Your task to perform on an android device: clear history in the chrome app Image 0: 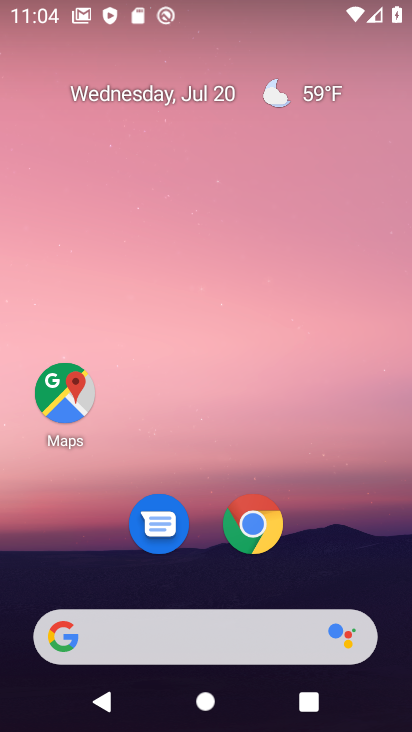
Step 0: click (252, 525)
Your task to perform on an android device: clear history in the chrome app Image 1: 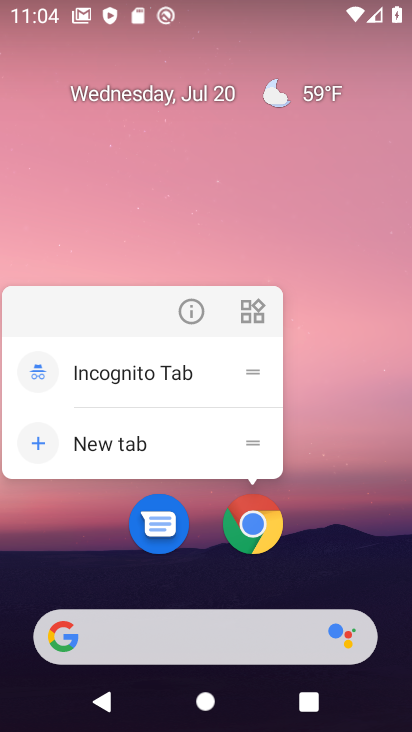
Step 1: click (252, 533)
Your task to perform on an android device: clear history in the chrome app Image 2: 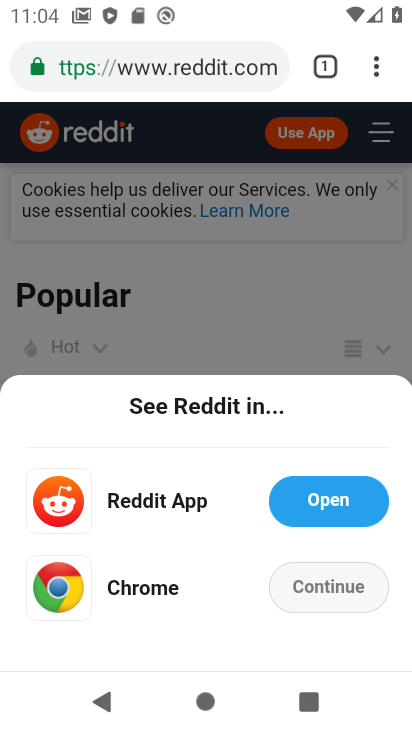
Step 2: drag from (371, 64) to (184, 374)
Your task to perform on an android device: clear history in the chrome app Image 3: 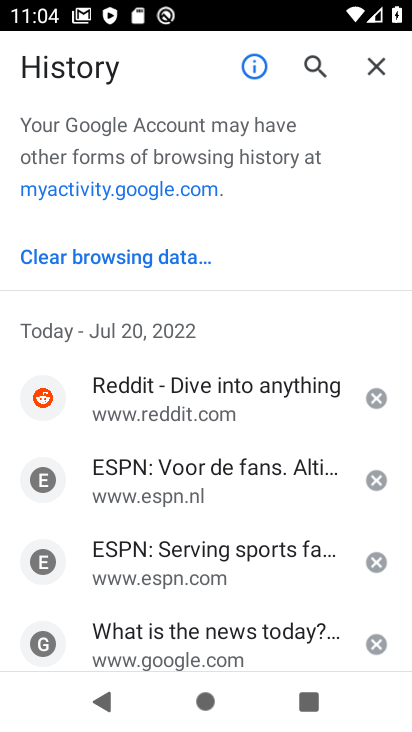
Step 3: click (146, 242)
Your task to perform on an android device: clear history in the chrome app Image 4: 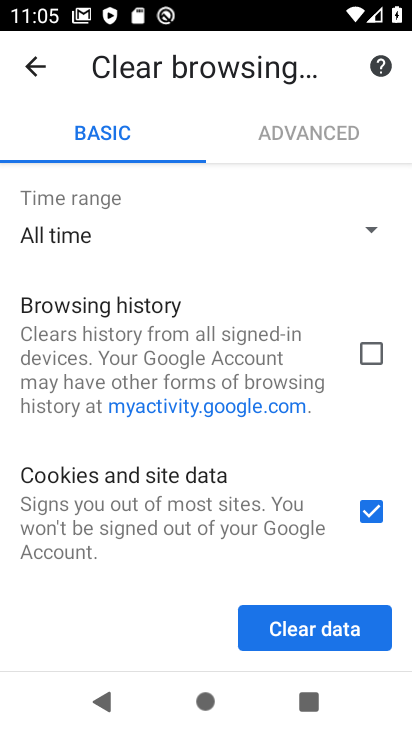
Step 4: click (364, 348)
Your task to perform on an android device: clear history in the chrome app Image 5: 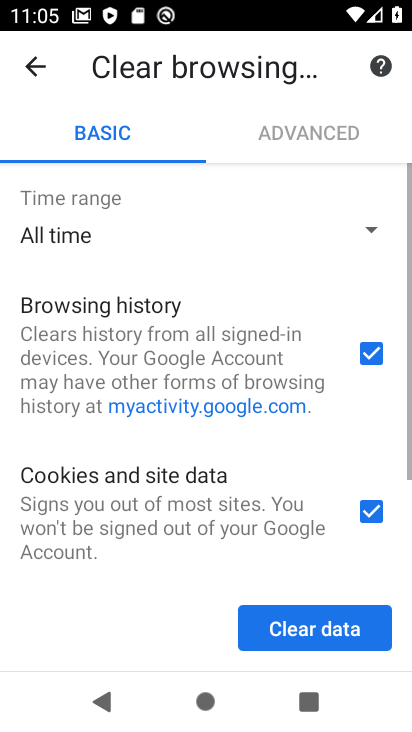
Step 5: drag from (249, 498) to (298, 191)
Your task to perform on an android device: clear history in the chrome app Image 6: 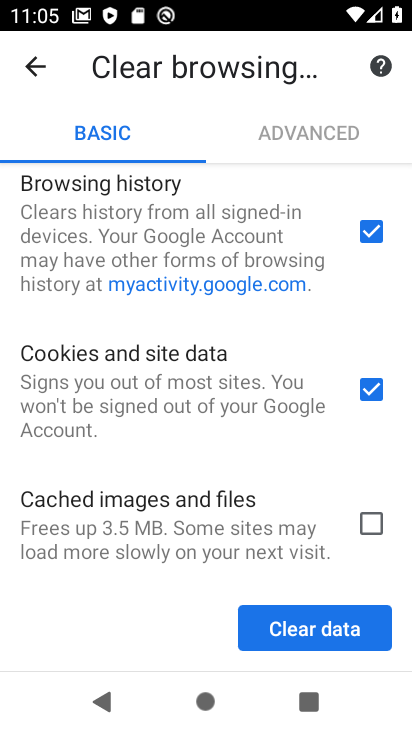
Step 6: drag from (291, 549) to (355, 205)
Your task to perform on an android device: clear history in the chrome app Image 7: 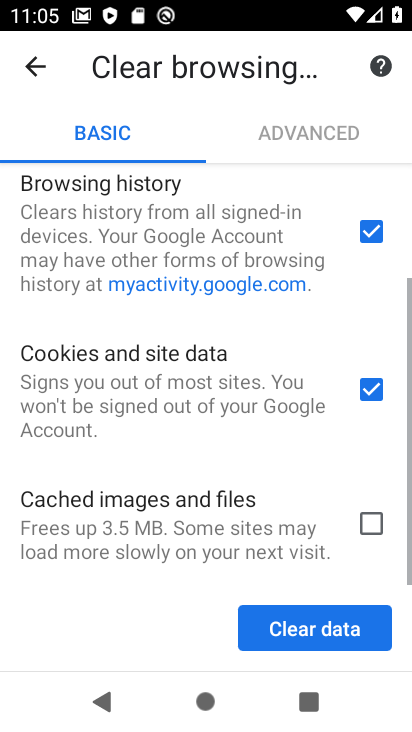
Step 7: click (376, 522)
Your task to perform on an android device: clear history in the chrome app Image 8: 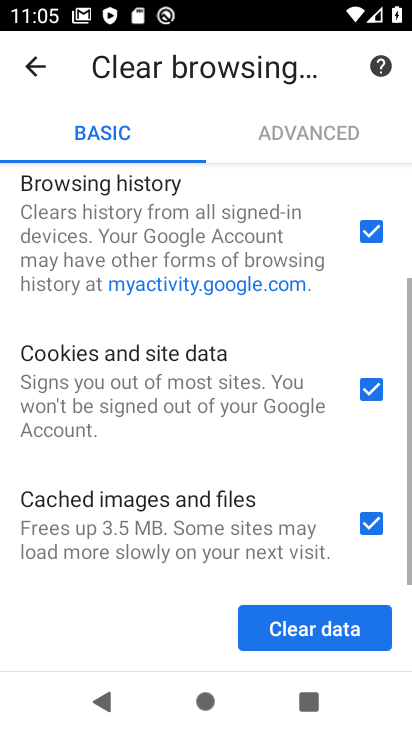
Step 8: click (325, 623)
Your task to perform on an android device: clear history in the chrome app Image 9: 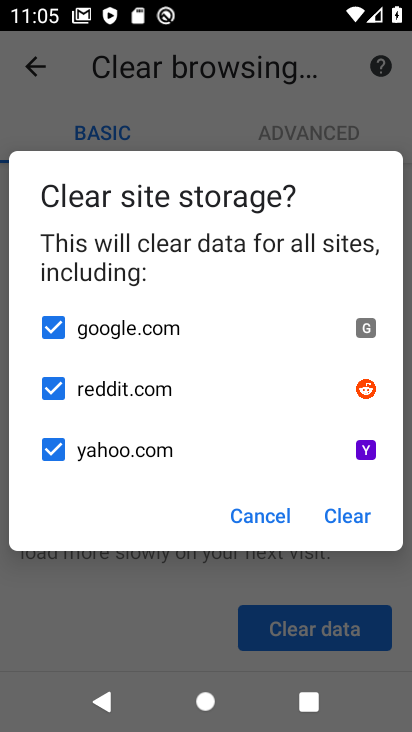
Step 9: click (342, 510)
Your task to perform on an android device: clear history in the chrome app Image 10: 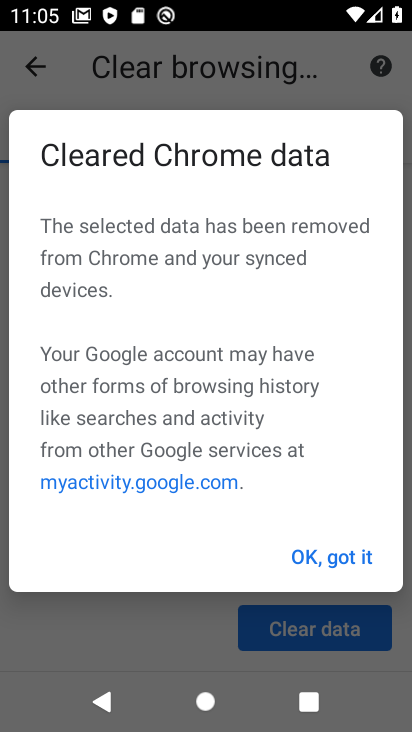
Step 10: click (334, 562)
Your task to perform on an android device: clear history in the chrome app Image 11: 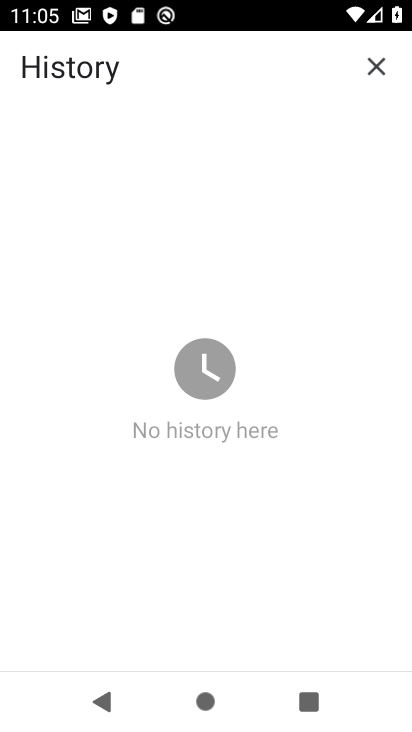
Step 11: task complete